Your task to perform on an android device: add a label to a message in the gmail app Image 0: 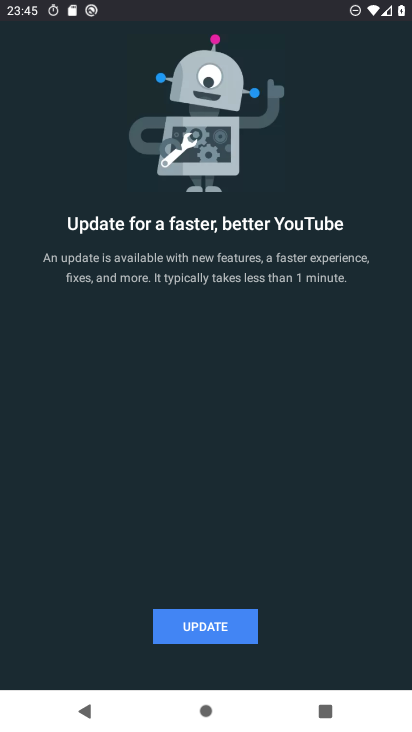
Step 0: press home button
Your task to perform on an android device: add a label to a message in the gmail app Image 1: 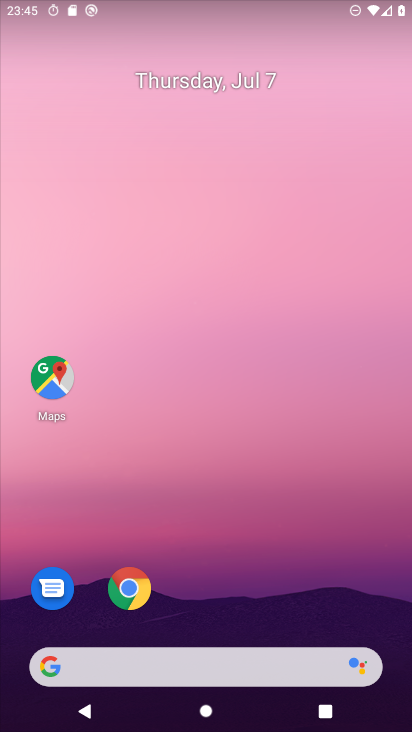
Step 1: drag from (302, 553) to (284, 104)
Your task to perform on an android device: add a label to a message in the gmail app Image 2: 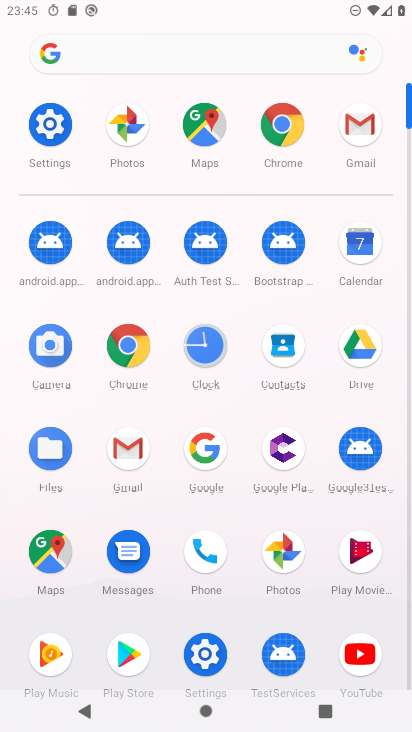
Step 2: click (365, 118)
Your task to perform on an android device: add a label to a message in the gmail app Image 3: 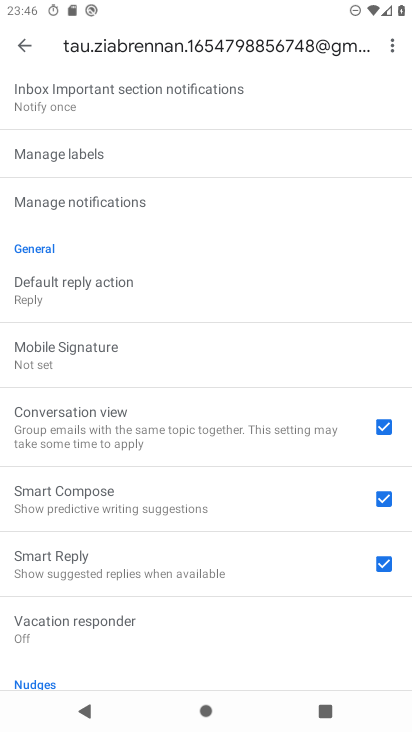
Step 3: click (26, 45)
Your task to perform on an android device: add a label to a message in the gmail app Image 4: 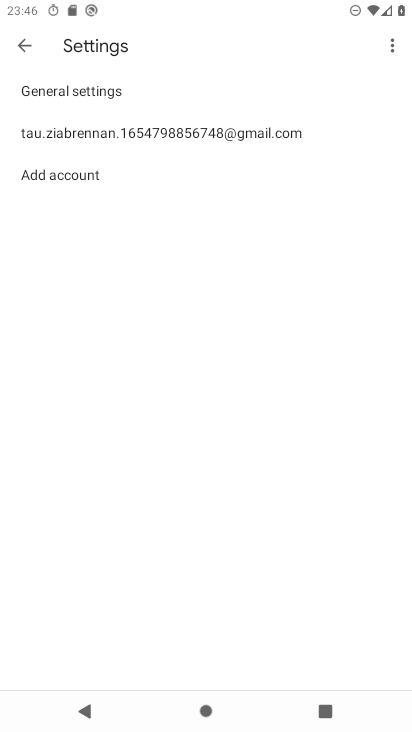
Step 4: click (21, 47)
Your task to perform on an android device: add a label to a message in the gmail app Image 5: 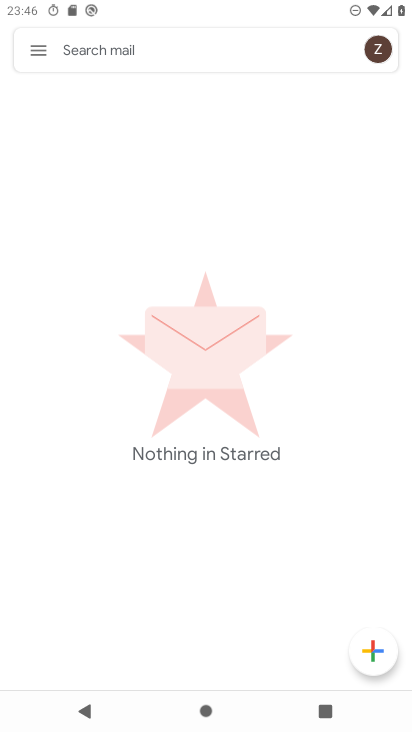
Step 5: click (34, 49)
Your task to perform on an android device: add a label to a message in the gmail app Image 6: 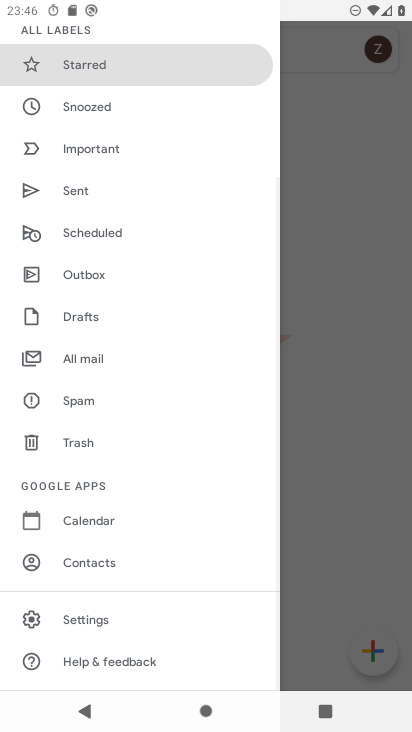
Step 6: click (78, 349)
Your task to perform on an android device: add a label to a message in the gmail app Image 7: 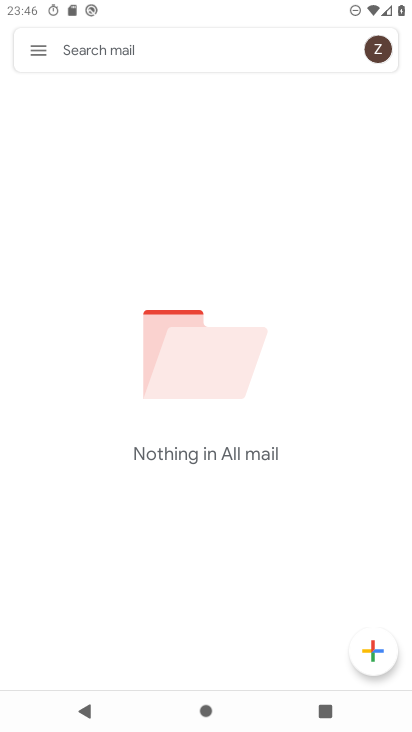
Step 7: task complete